Your task to perform on an android device: When is my next meeting? Image 0: 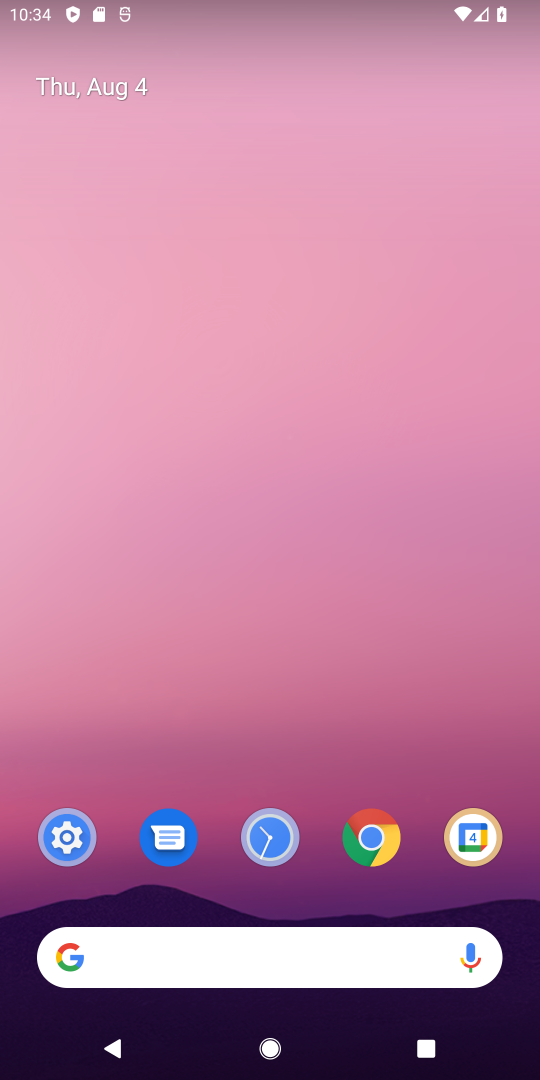
Step 0: drag from (425, 756) to (270, 17)
Your task to perform on an android device: When is my next meeting? Image 1: 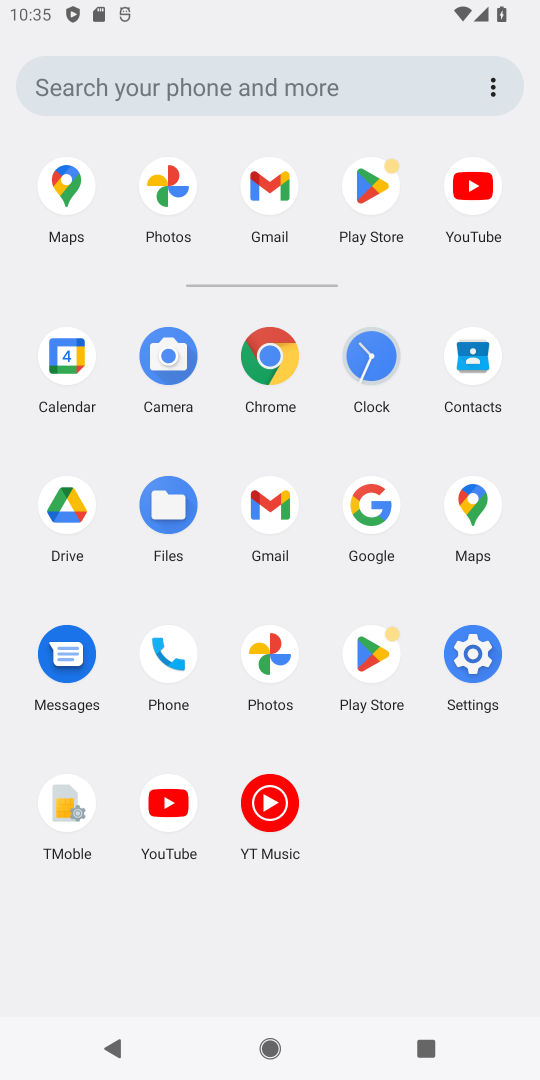
Step 1: click (61, 352)
Your task to perform on an android device: When is my next meeting? Image 2: 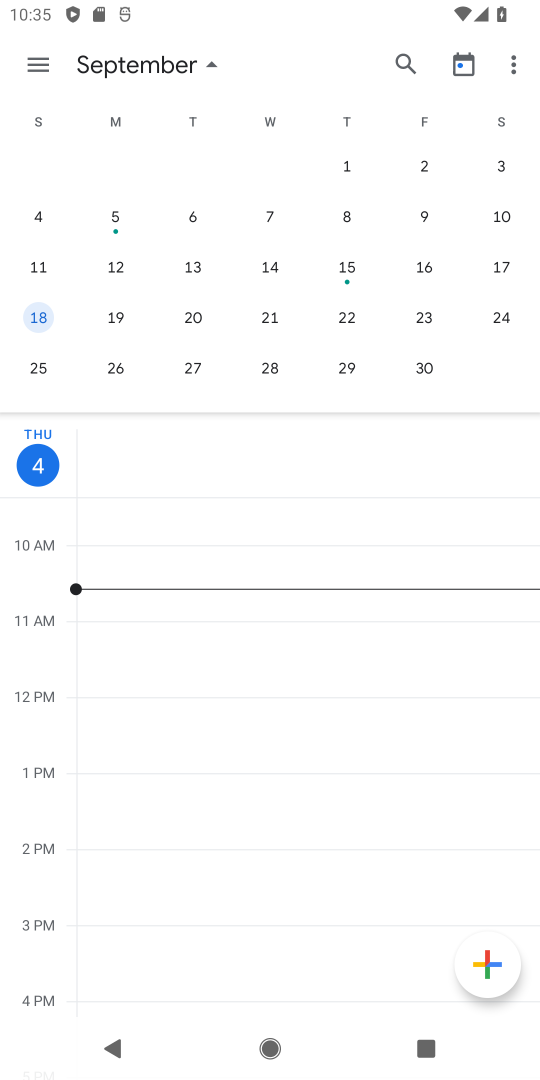
Step 2: task complete